Your task to perform on an android device: What's the weather today? Image 0: 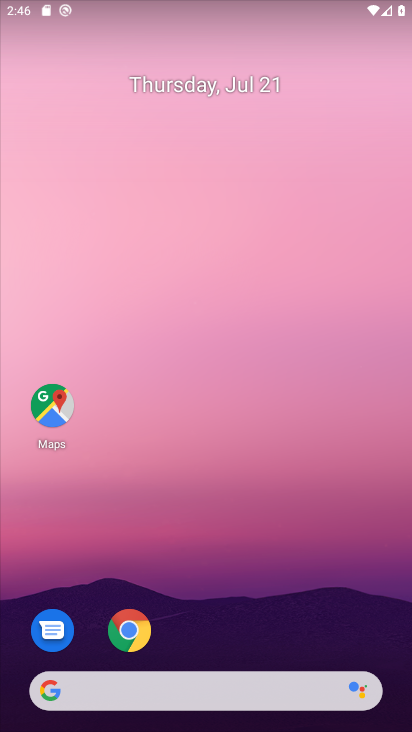
Step 0: click (227, 119)
Your task to perform on an android device: What's the weather today? Image 1: 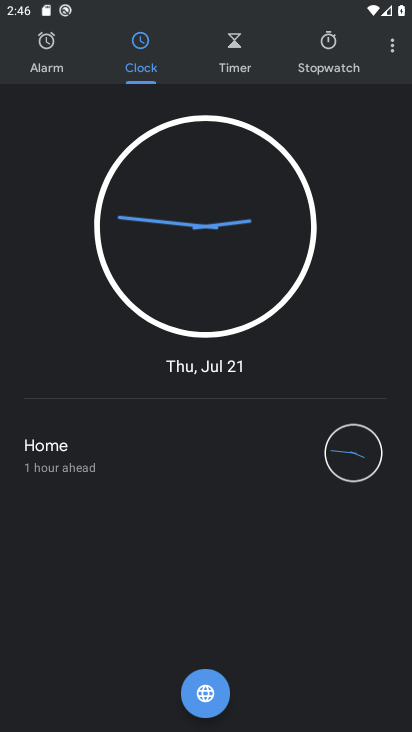
Step 1: press back button
Your task to perform on an android device: What's the weather today? Image 2: 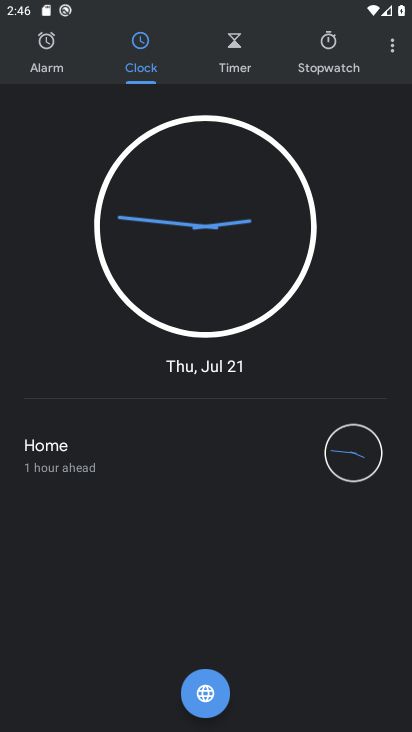
Step 2: press back button
Your task to perform on an android device: What's the weather today? Image 3: 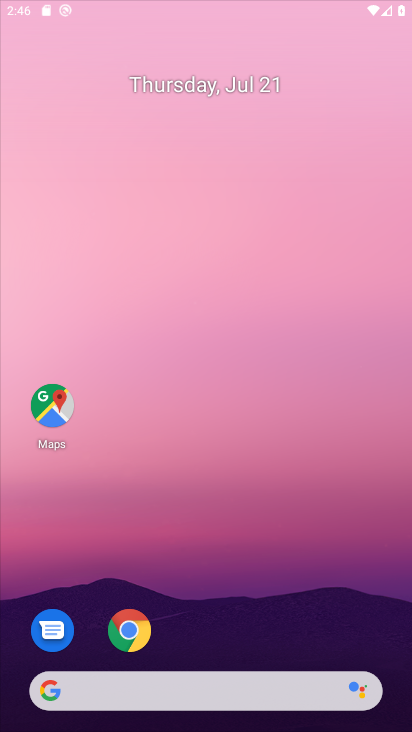
Step 3: press back button
Your task to perform on an android device: What's the weather today? Image 4: 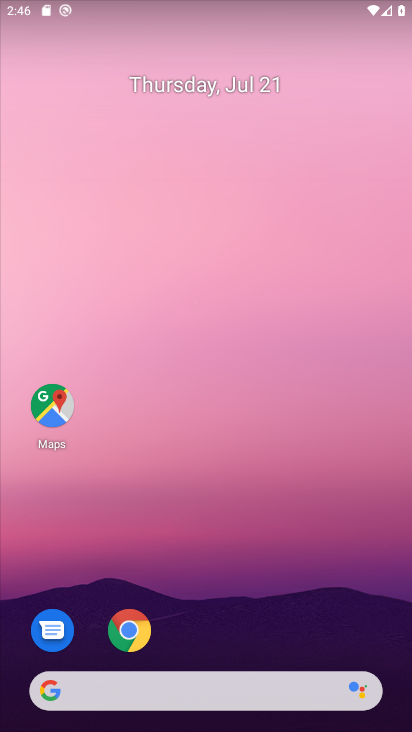
Step 4: drag from (44, 124) to (392, 358)
Your task to perform on an android device: What's the weather today? Image 5: 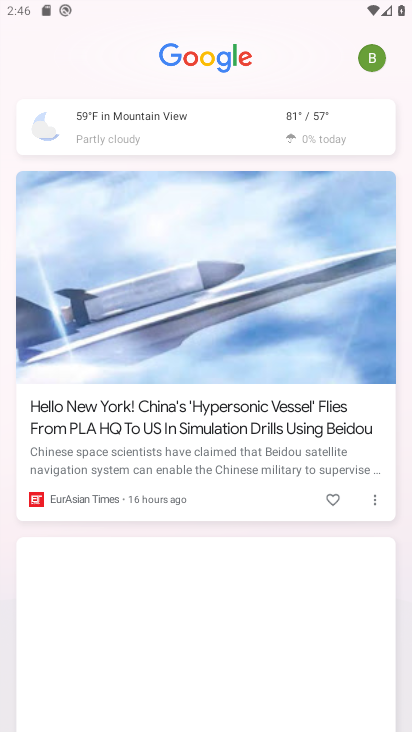
Step 5: click (180, 129)
Your task to perform on an android device: What's the weather today? Image 6: 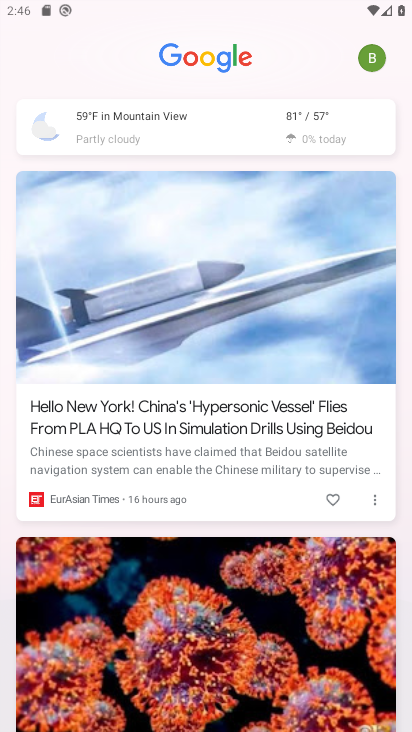
Step 6: click (180, 129)
Your task to perform on an android device: What's the weather today? Image 7: 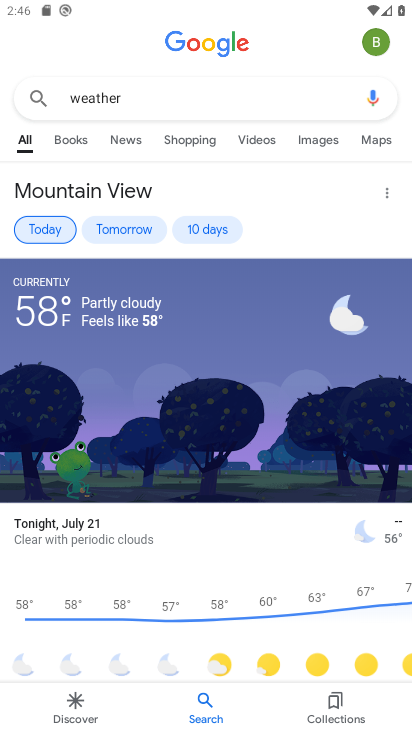
Step 7: task complete